Your task to perform on an android device: Open the Play Movies app and select the watchlist tab. Image 0: 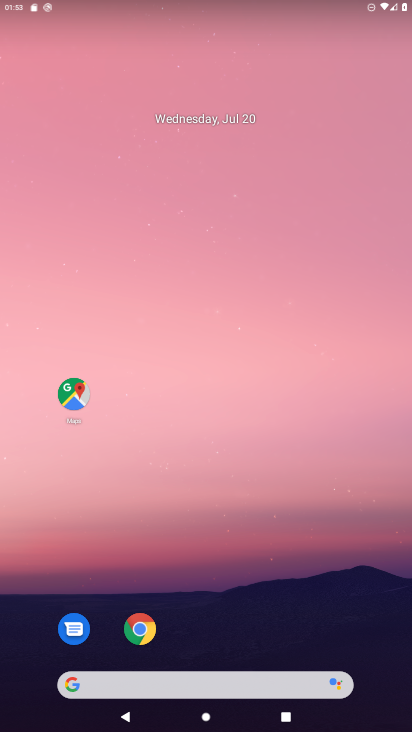
Step 0: click (138, 248)
Your task to perform on an android device: Open the Play Movies app and select the watchlist tab. Image 1: 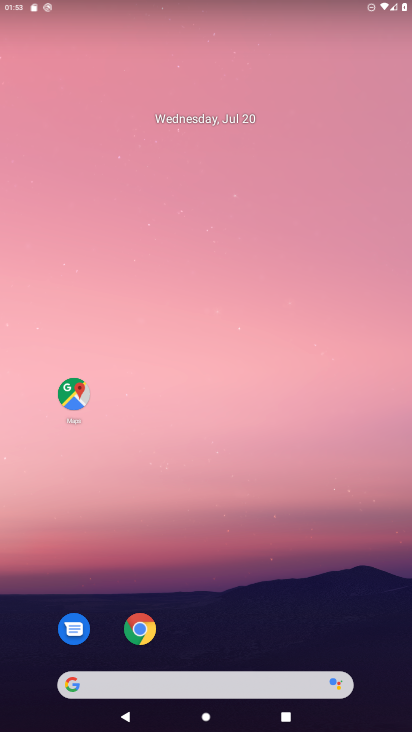
Step 1: drag from (188, 577) to (154, 7)
Your task to perform on an android device: Open the Play Movies app and select the watchlist tab. Image 2: 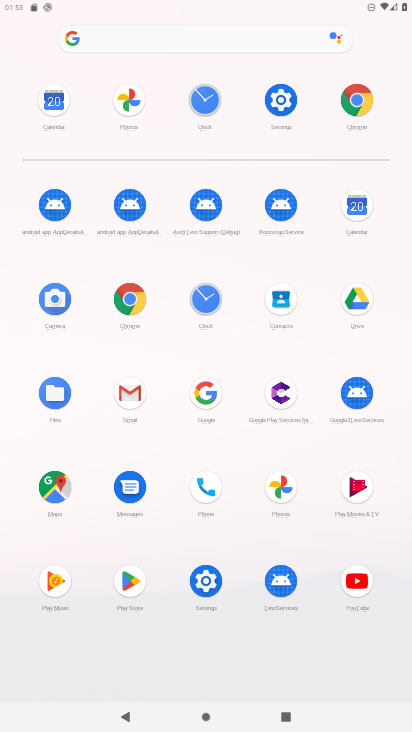
Step 2: click (351, 502)
Your task to perform on an android device: Open the Play Movies app and select the watchlist tab. Image 3: 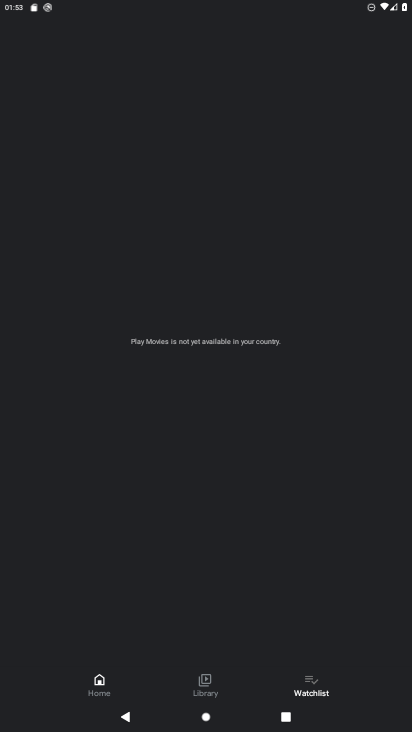
Step 3: click (306, 681)
Your task to perform on an android device: Open the Play Movies app and select the watchlist tab. Image 4: 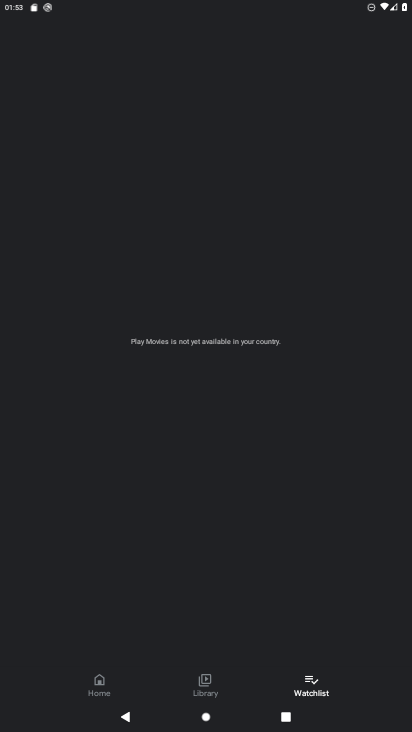
Step 4: task complete